Your task to perform on an android device: change text size in settings app Image 0: 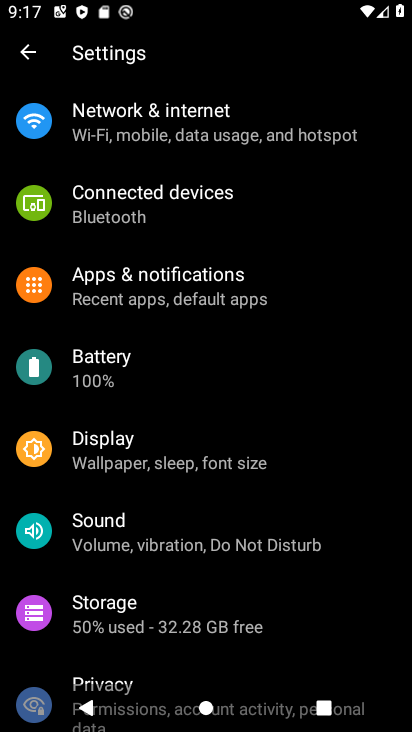
Step 0: task complete